Your task to perform on an android device: Show me the alarms in the clock app Image 0: 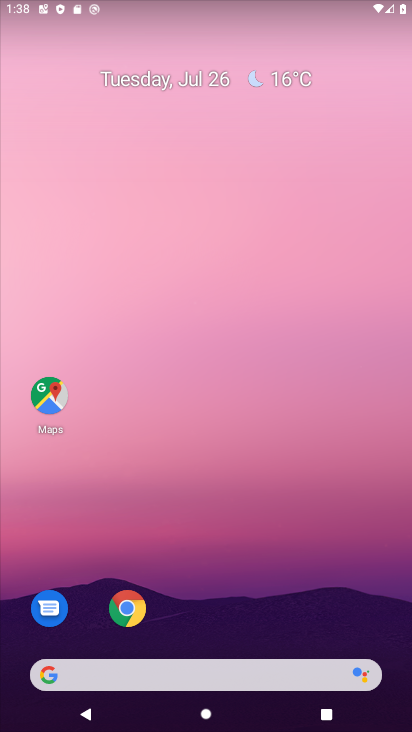
Step 0: drag from (202, 644) to (195, 42)
Your task to perform on an android device: Show me the alarms in the clock app Image 1: 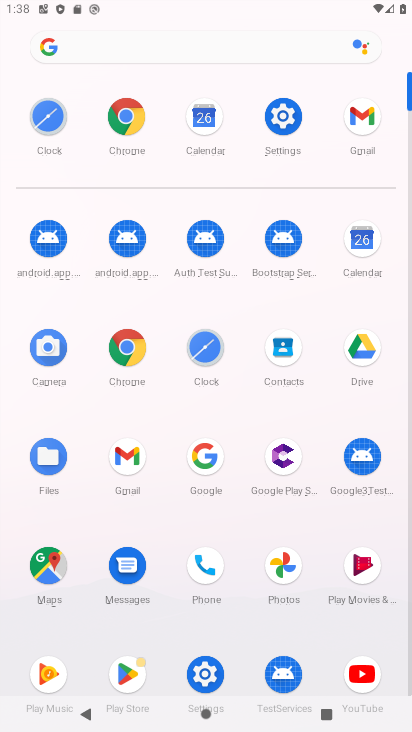
Step 1: click (216, 350)
Your task to perform on an android device: Show me the alarms in the clock app Image 2: 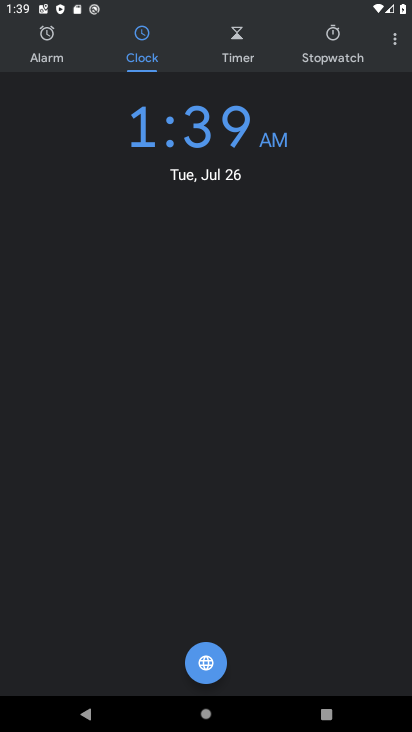
Step 2: task complete